Your task to perform on an android device: Open Youtube and go to "Your channel" Image 0: 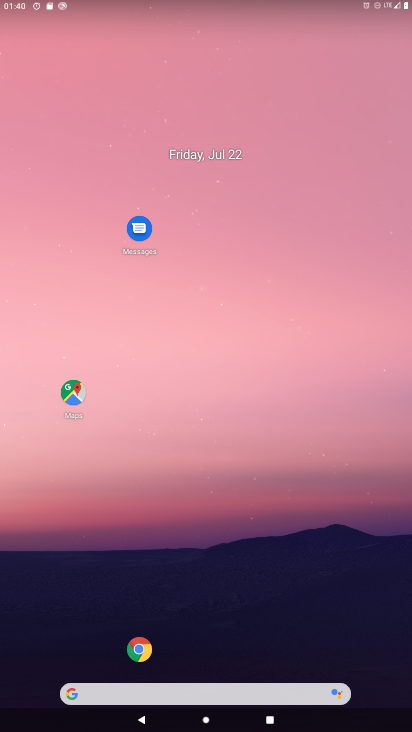
Step 0: drag from (79, 481) to (211, 128)
Your task to perform on an android device: Open Youtube and go to "Your channel" Image 1: 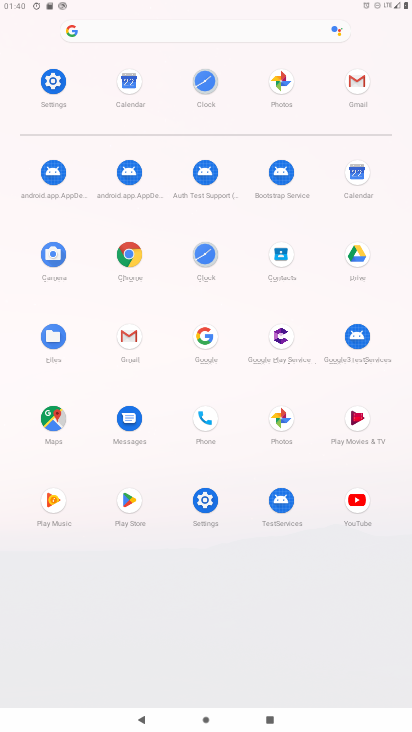
Step 1: click (356, 496)
Your task to perform on an android device: Open Youtube and go to "Your channel" Image 2: 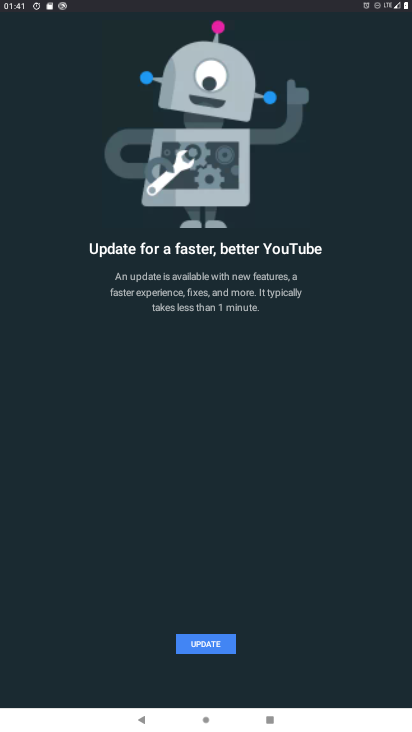
Step 2: click (195, 635)
Your task to perform on an android device: Open Youtube and go to "Your channel" Image 3: 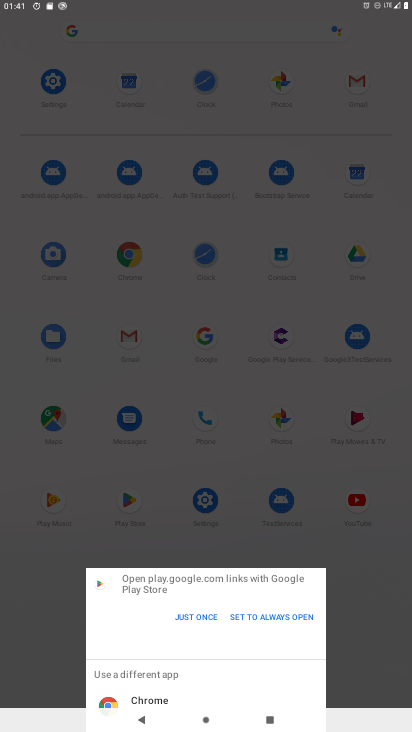
Step 3: click (202, 618)
Your task to perform on an android device: Open Youtube and go to "Your channel" Image 4: 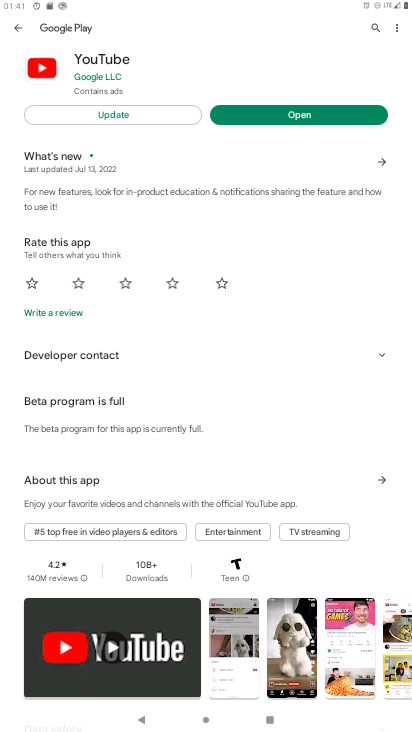
Step 4: click (301, 110)
Your task to perform on an android device: Open Youtube and go to "Your channel" Image 5: 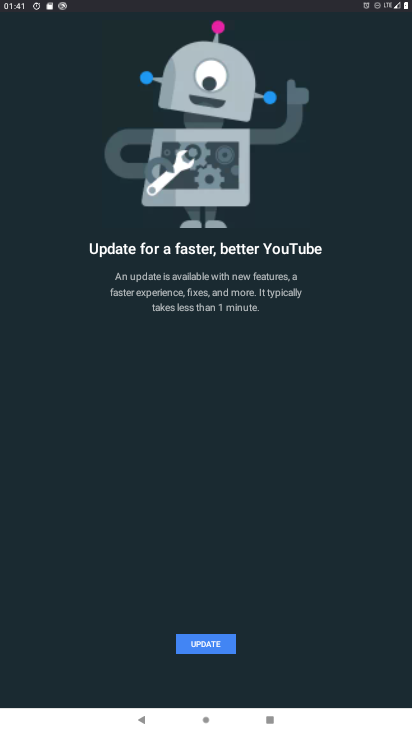
Step 5: task complete